Your task to perform on an android device: turn off location Image 0: 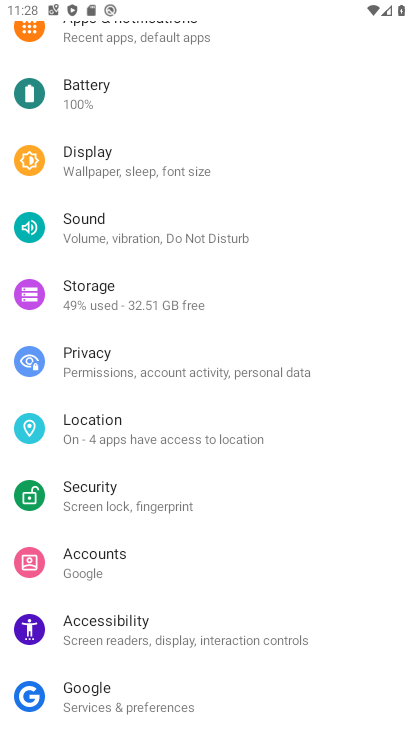
Step 0: press home button
Your task to perform on an android device: turn off location Image 1: 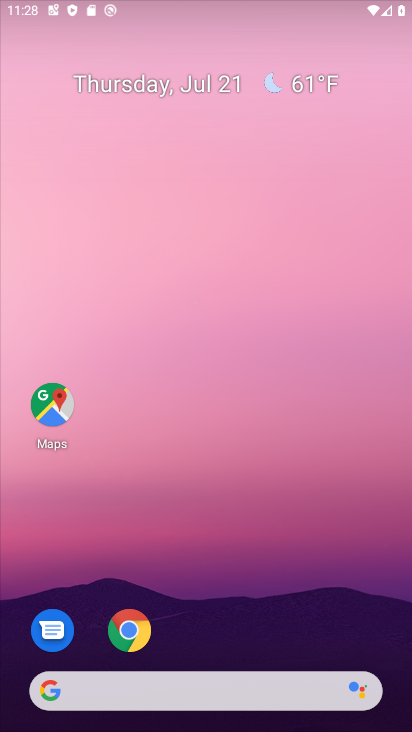
Step 1: drag from (197, 672) to (197, 212)
Your task to perform on an android device: turn off location Image 2: 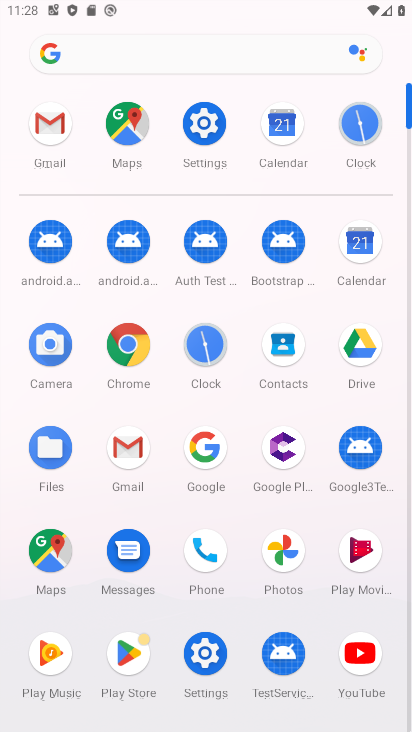
Step 2: click (216, 654)
Your task to perform on an android device: turn off location Image 3: 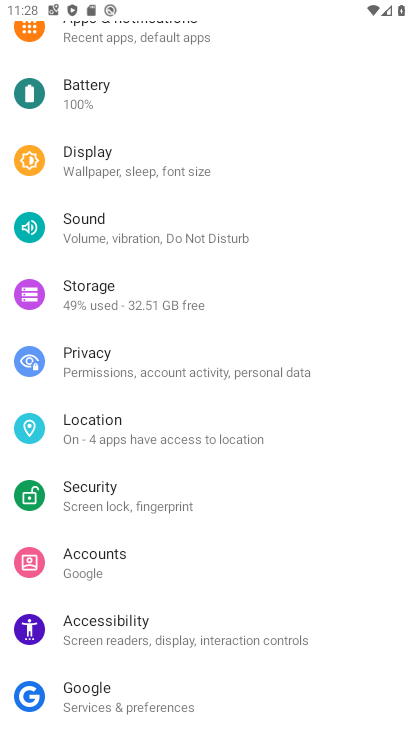
Step 3: drag from (137, 684) to (98, 281)
Your task to perform on an android device: turn off location Image 4: 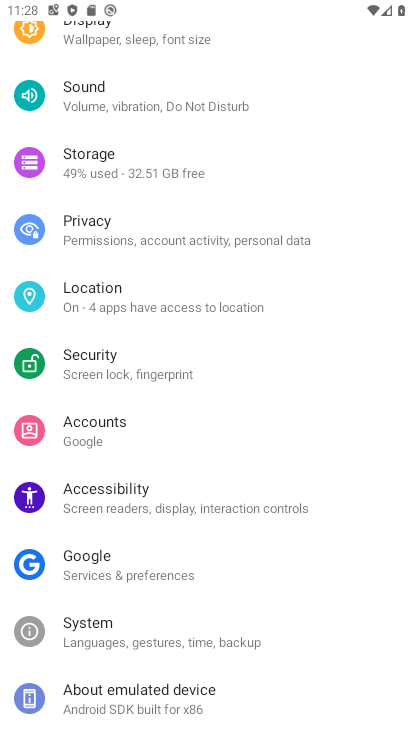
Step 4: click (92, 307)
Your task to perform on an android device: turn off location Image 5: 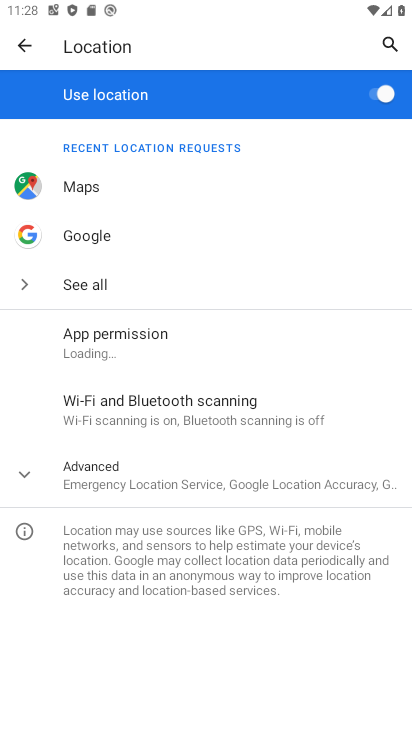
Step 5: click (373, 91)
Your task to perform on an android device: turn off location Image 6: 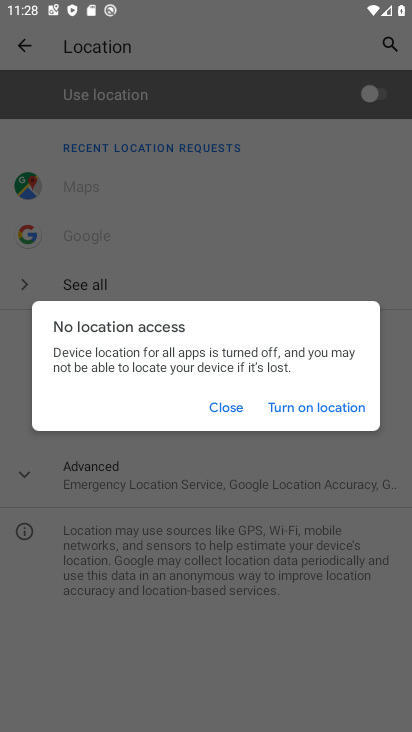
Step 6: click (219, 411)
Your task to perform on an android device: turn off location Image 7: 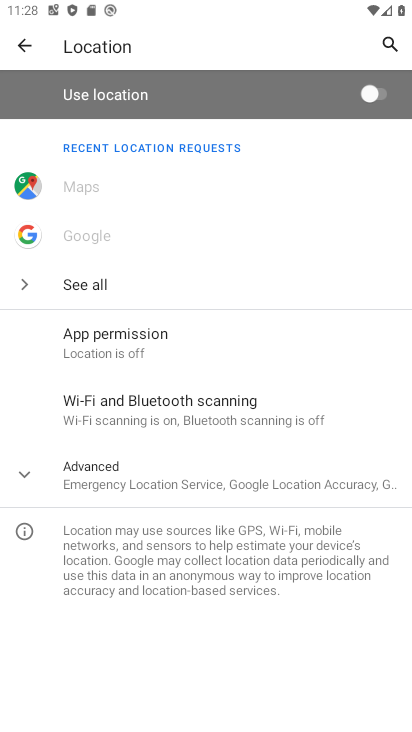
Step 7: task complete